Your task to perform on an android device: Turn off the flashlight Image 0: 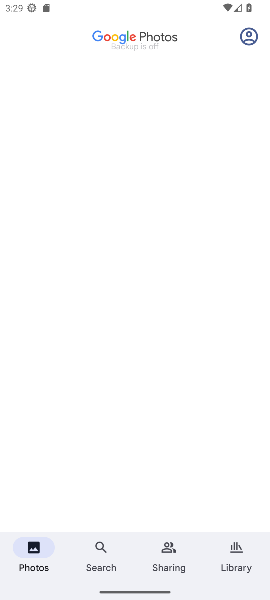
Step 0: press back button
Your task to perform on an android device: Turn off the flashlight Image 1: 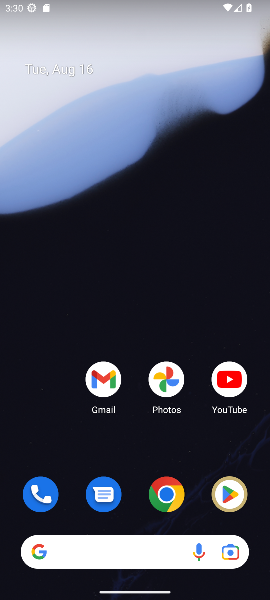
Step 1: task complete